Your task to perform on an android device: toggle pop-ups in chrome Image 0: 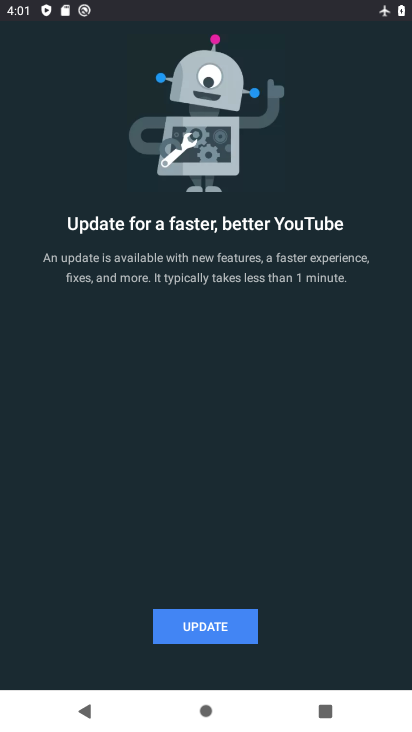
Step 0: drag from (272, 612) to (274, 235)
Your task to perform on an android device: toggle pop-ups in chrome Image 1: 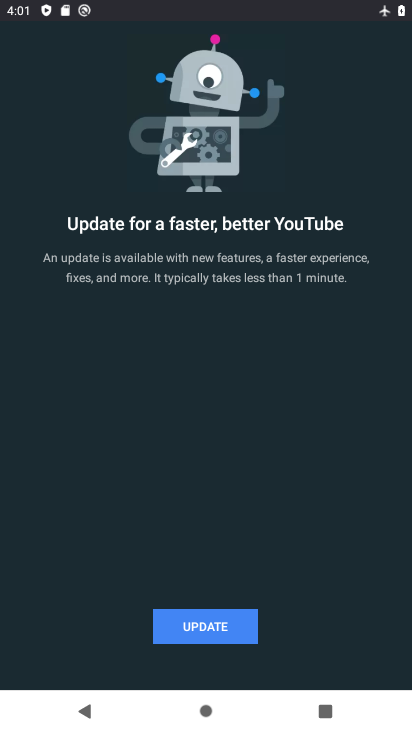
Step 1: press home button
Your task to perform on an android device: toggle pop-ups in chrome Image 2: 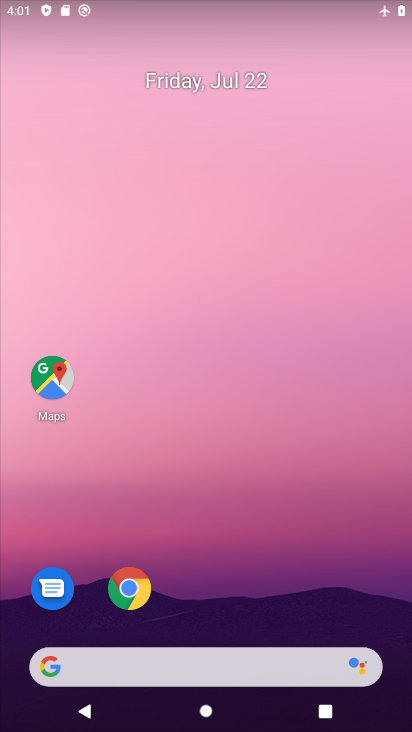
Step 2: click (140, 585)
Your task to perform on an android device: toggle pop-ups in chrome Image 3: 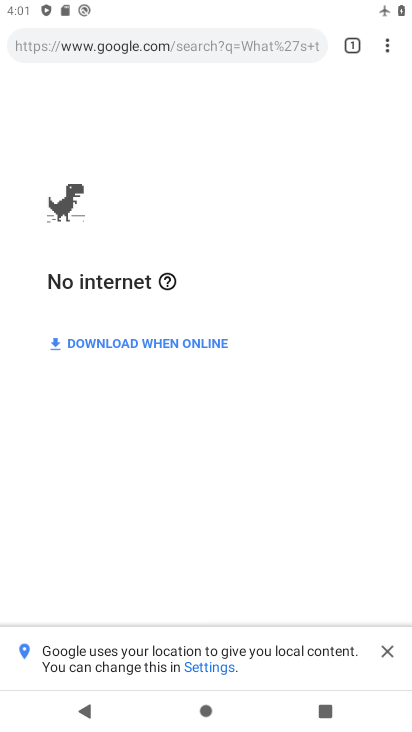
Step 3: click (390, 49)
Your task to perform on an android device: toggle pop-ups in chrome Image 4: 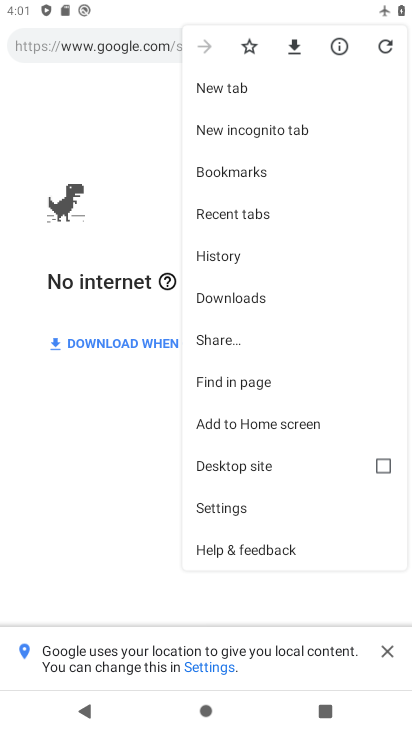
Step 4: click (261, 495)
Your task to perform on an android device: toggle pop-ups in chrome Image 5: 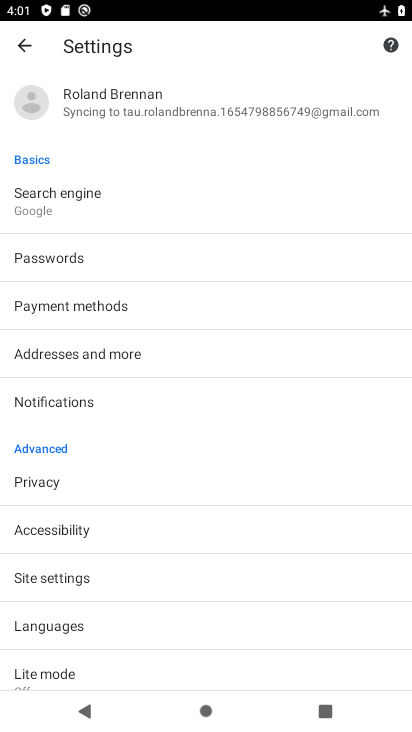
Step 5: drag from (201, 666) to (193, 481)
Your task to perform on an android device: toggle pop-ups in chrome Image 6: 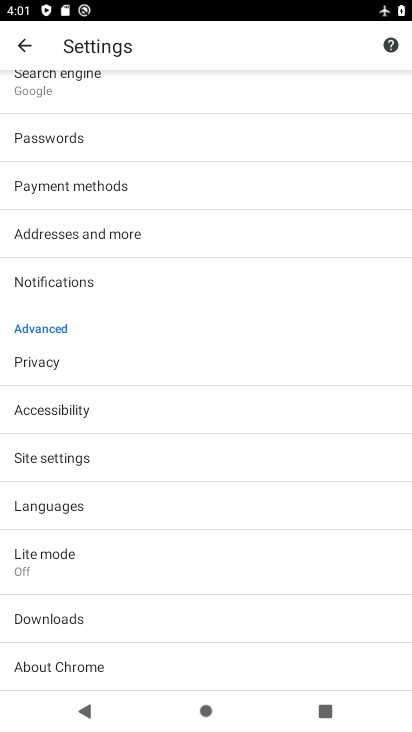
Step 6: click (140, 470)
Your task to perform on an android device: toggle pop-ups in chrome Image 7: 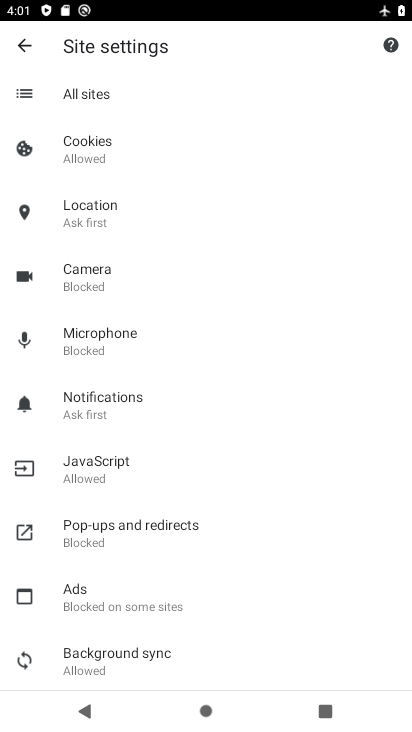
Step 7: click (226, 529)
Your task to perform on an android device: toggle pop-ups in chrome Image 8: 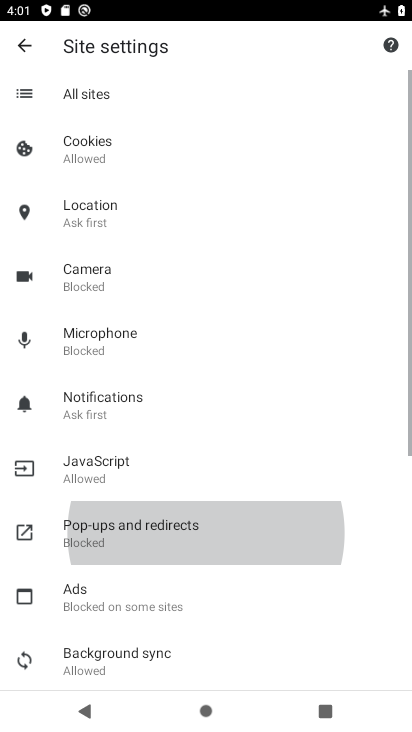
Step 8: click (138, 525)
Your task to perform on an android device: toggle pop-ups in chrome Image 9: 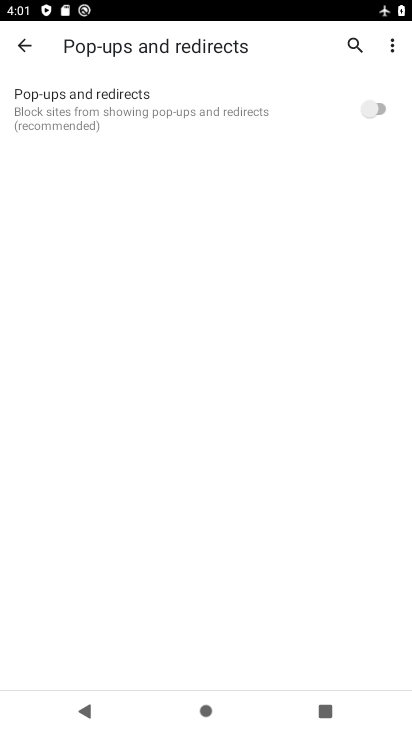
Step 9: click (375, 125)
Your task to perform on an android device: toggle pop-ups in chrome Image 10: 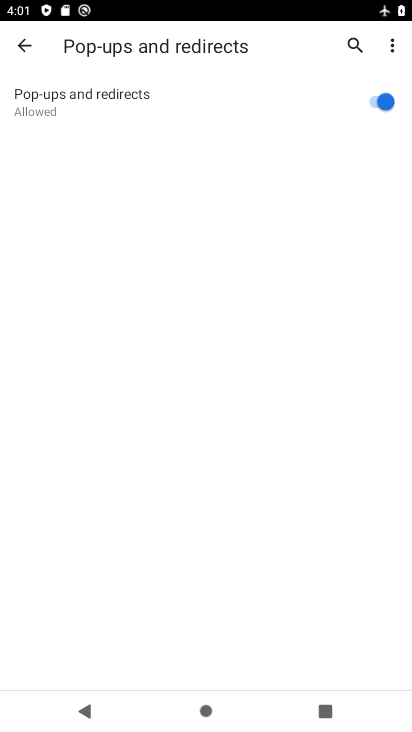
Step 10: task complete